Your task to perform on an android device: Go to Google maps Image 0: 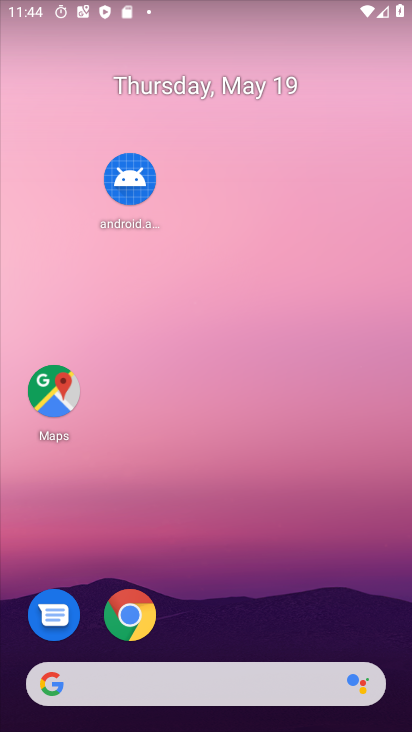
Step 0: click (60, 393)
Your task to perform on an android device: Go to Google maps Image 1: 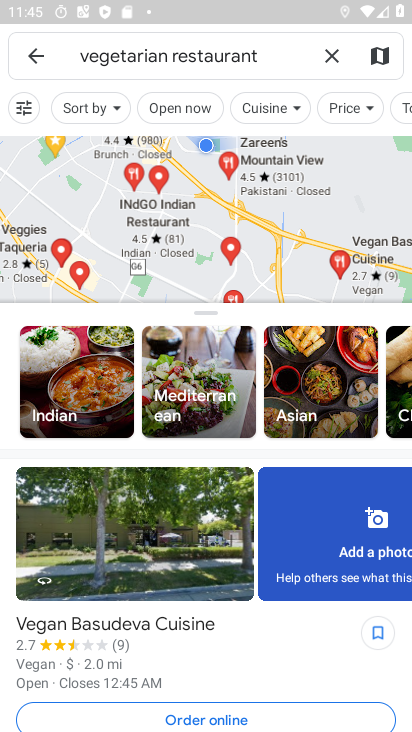
Step 1: task complete